Your task to perform on an android device: clear history in the chrome app Image 0: 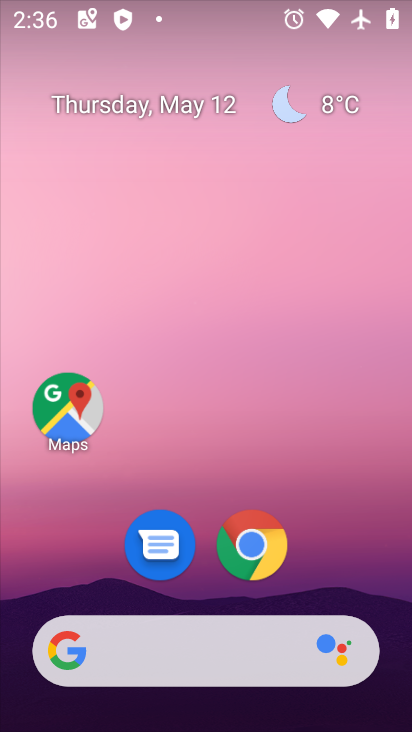
Step 0: click (257, 540)
Your task to perform on an android device: clear history in the chrome app Image 1: 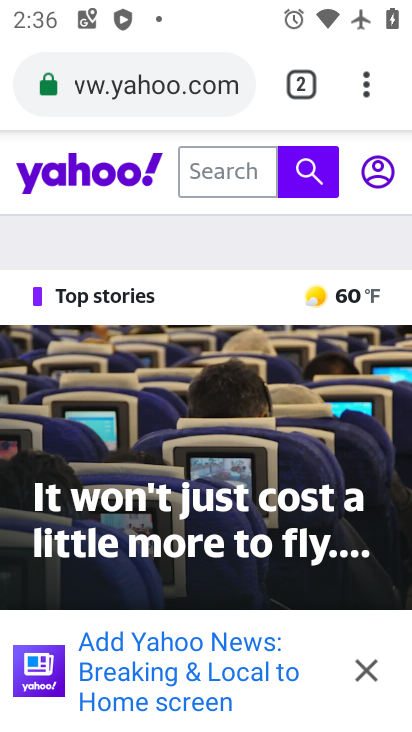
Step 1: click (362, 94)
Your task to perform on an android device: clear history in the chrome app Image 2: 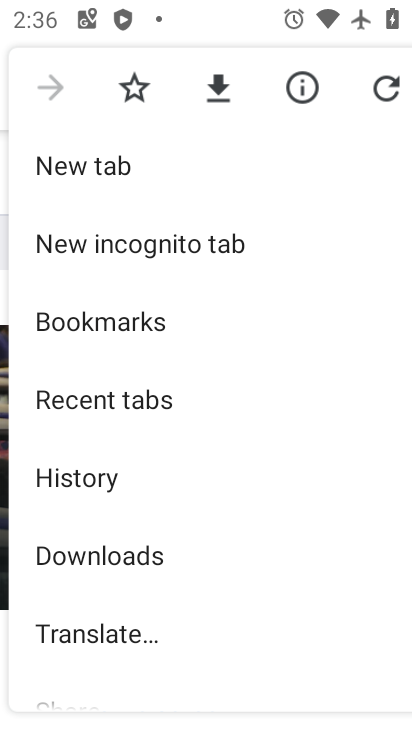
Step 2: click (98, 472)
Your task to perform on an android device: clear history in the chrome app Image 3: 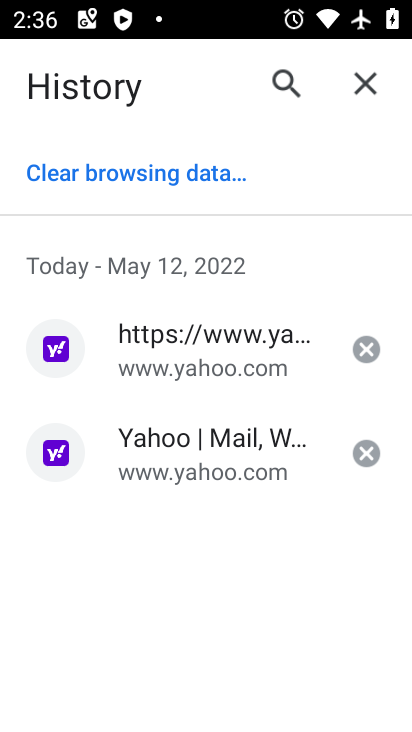
Step 3: click (149, 173)
Your task to perform on an android device: clear history in the chrome app Image 4: 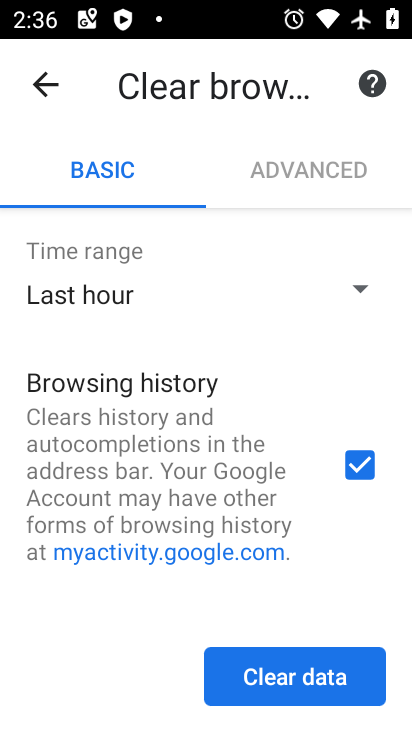
Step 4: drag from (349, 491) to (262, 215)
Your task to perform on an android device: clear history in the chrome app Image 5: 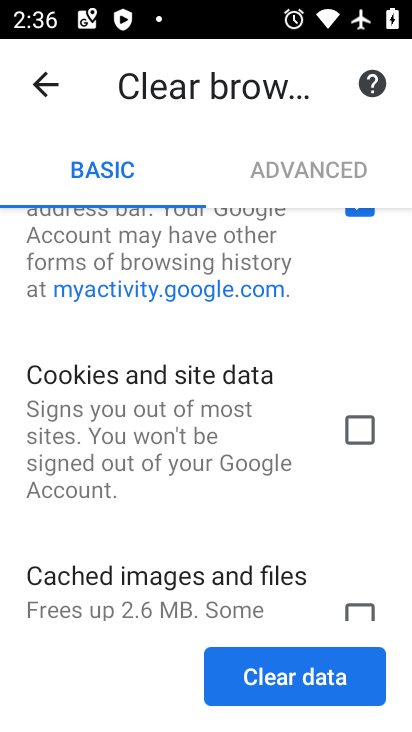
Step 5: click (297, 675)
Your task to perform on an android device: clear history in the chrome app Image 6: 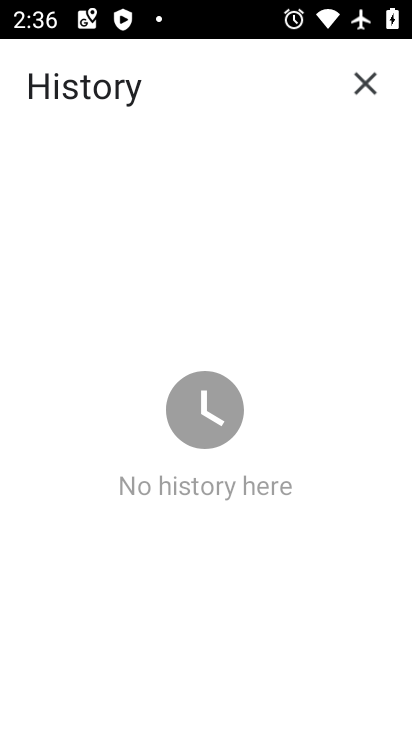
Step 6: task complete